Your task to perform on an android device: Go to Android settings Image 0: 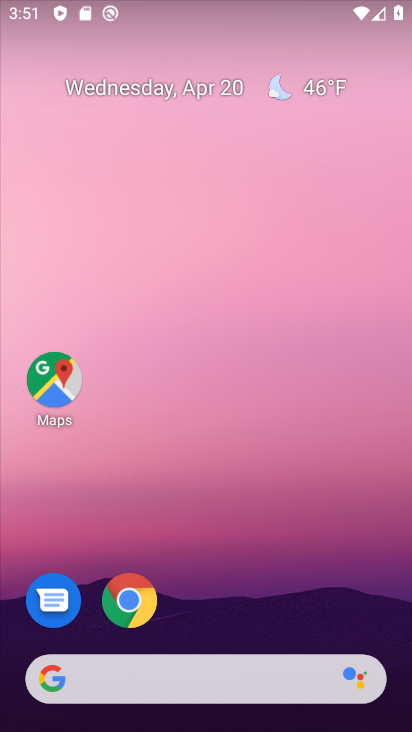
Step 0: drag from (253, 392) to (253, 56)
Your task to perform on an android device: Go to Android settings Image 1: 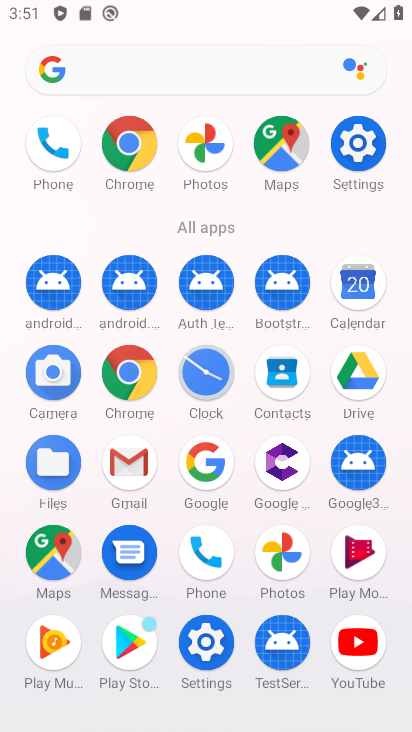
Step 1: click (360, 139)
Your task to perform on an android device: Go to Android settings Image 2: 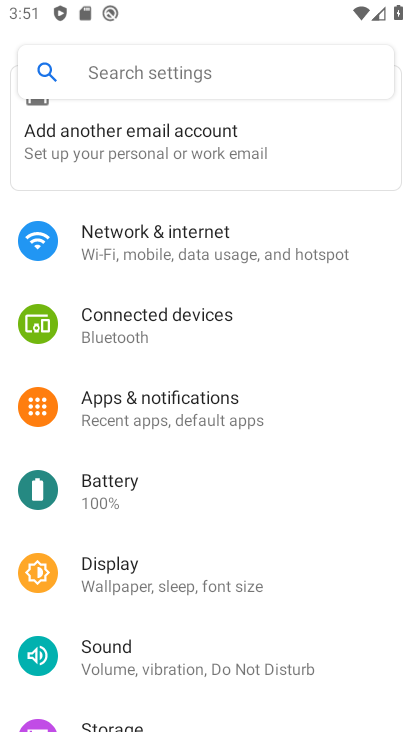
Step 2: drag from (229, 623) to (270, 131)
Your task to perform on an android device: Go to Android settings Image 3: 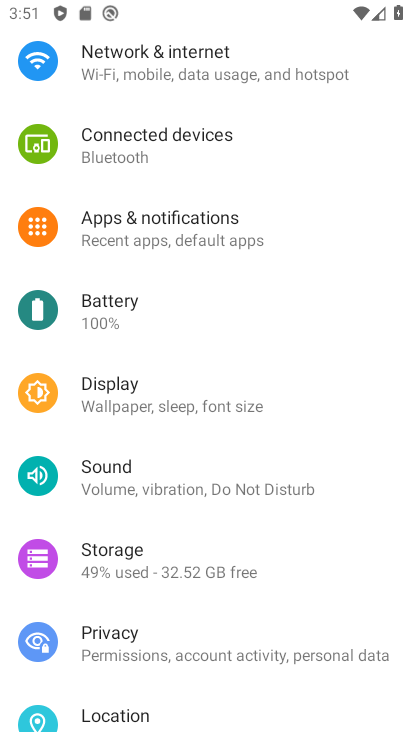
Step 3: drag from (217, 686) to (249, 155)
Your task to perform on an android device: Go to Android settings Image 4: 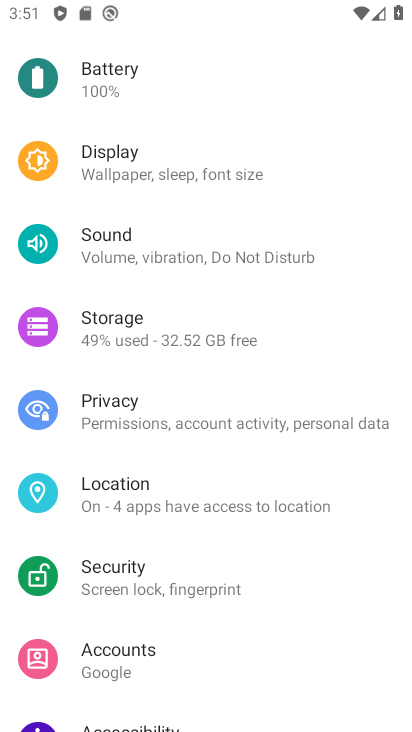
Step 4: drag from (216, 687) to (223, 206)
Your task to perform on an android device: Go to Android settings Image 5: 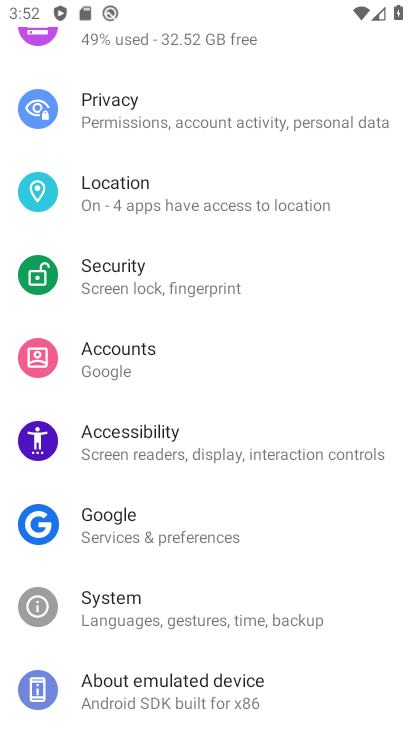
Step 5: click (208, 677)
Your task to perform on an android device: Go to Android settings Image 6: 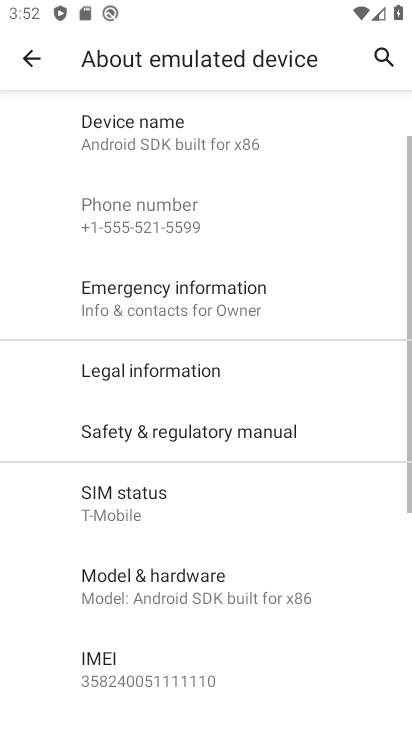
Step 6: drag from (154, 638) to (198, 235)
Your task to perform on an android device: Go to Android settings Image 7: 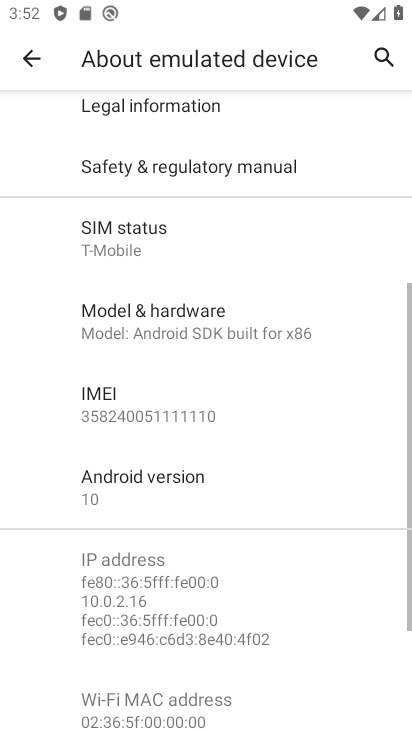
Step 7: click (143, 496)
Your task to perform on an android device: Go to Android settings Image 8: 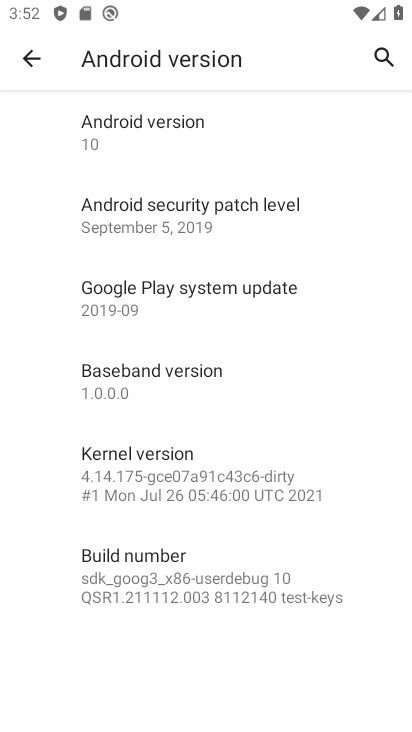
Step 8: task complete